Your task to perform on an android device: install app "Spotify" Image 0: 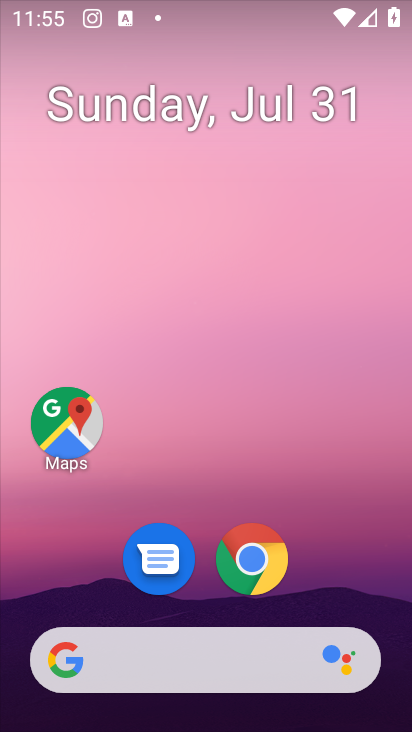
Step 0: drag from (113, 582) to (188, 5)
Your task to perform on an android device: install app "Spotify" Image 1: 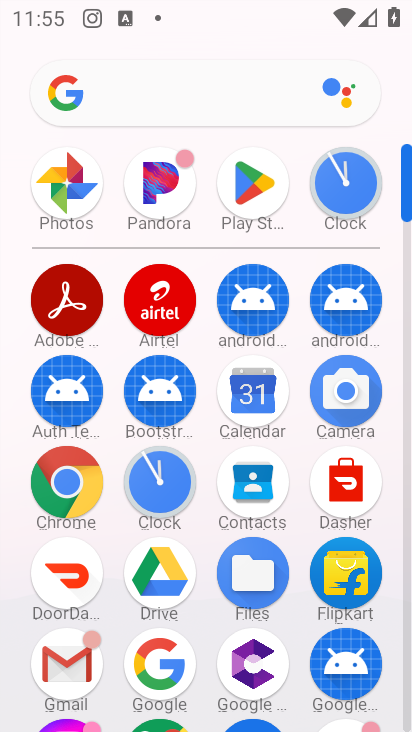
Step 1: click (252, 181)
Your task to perform on an android device: install app "Spotify" Image 2: 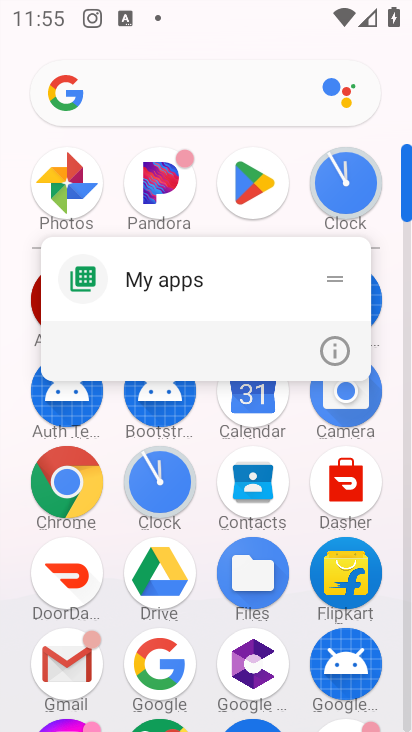
Step 2: click (252, 181)
Your task to perform on an android device: install app "Spotify" Image 3: 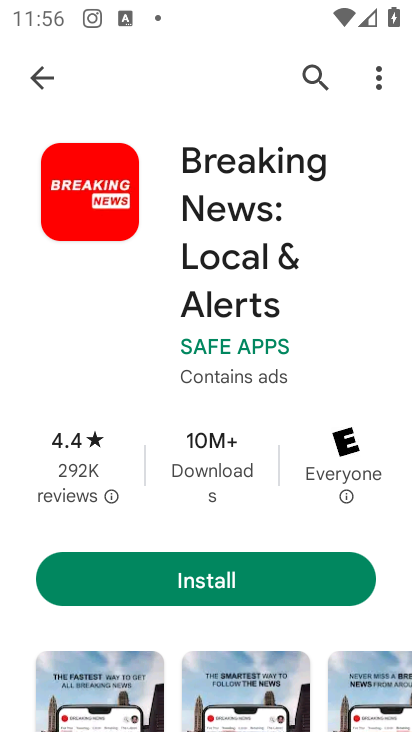
Step 3: click (304, 56)
Your task to perform on an android device: install app "Spotify" Image 4: 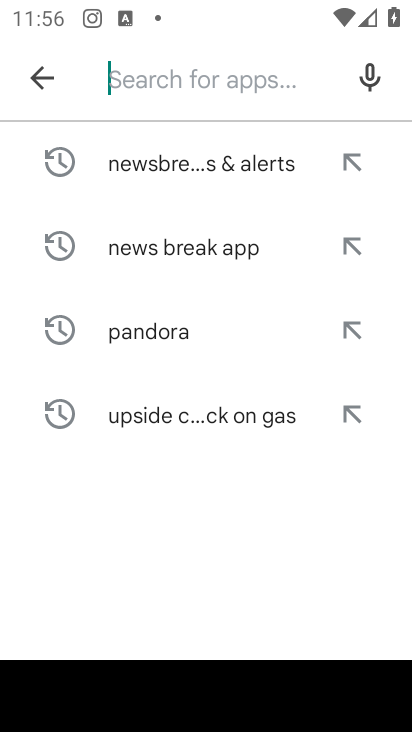
Step 4: click (190, 82)
Your task to perform on an android device: install app "Spotify" Image 5: 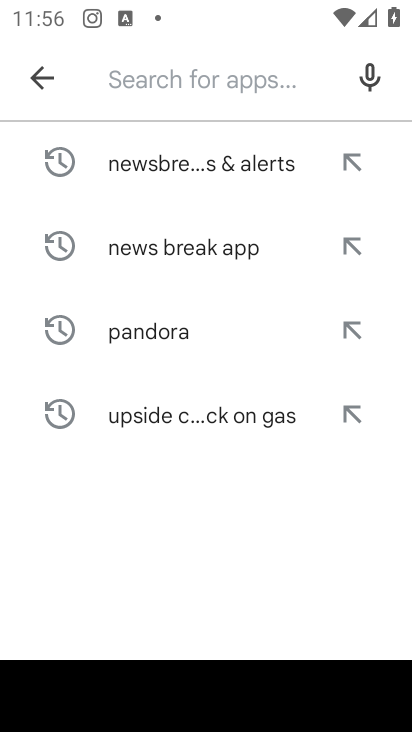
Step 5: type "spotify"
Your task to perform on an android device: install app "Spotify" Image 6: 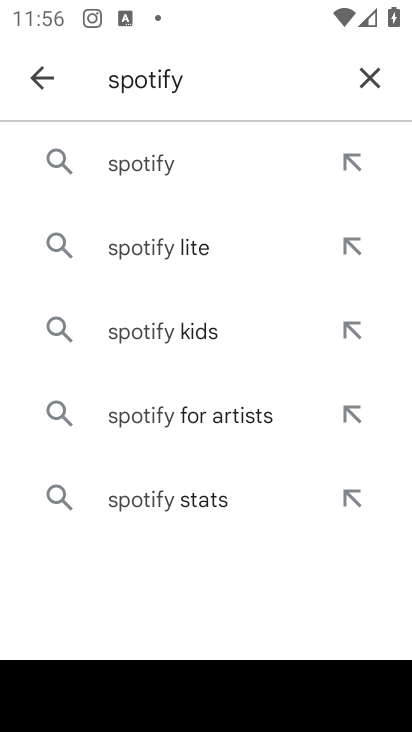
Step 6: click (165, 166)
Your task to perform on an android device: install app "Spotify" Image 7: 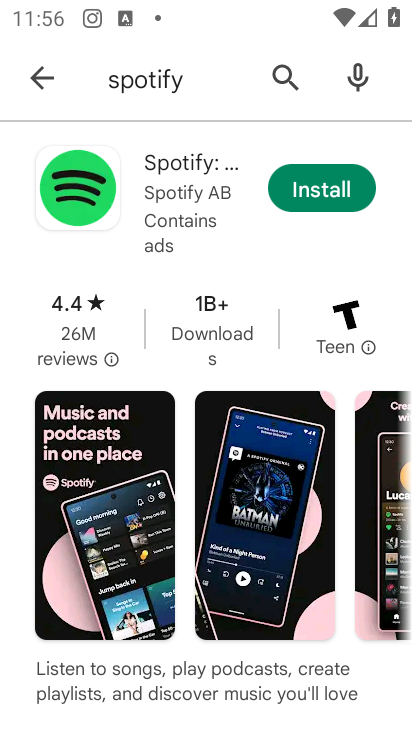
Step 7: click (323, 182)
Your task to perform on an android device: install app "Spotify" Image 8: 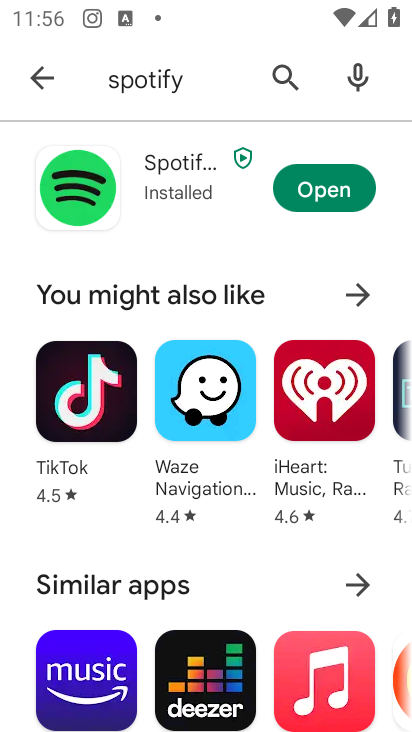
Step 8: click (288, 185)
Your task to perform on an android device: install app "Spotify" Image 9: 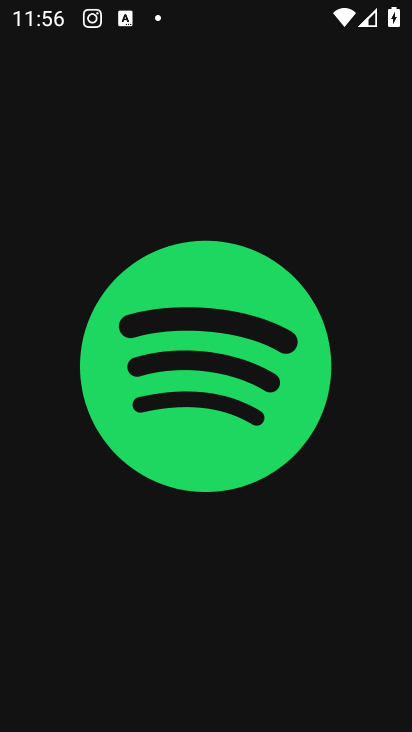
Step 9: task complete